Your task to perform on an android device: Go to network settings Image 0: 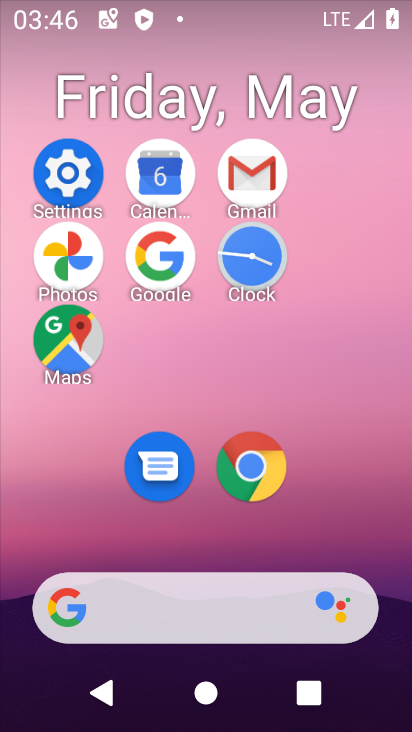
Step 0: click (63, 166)
Your task to perform on an android device: Go to network settings Image 1: 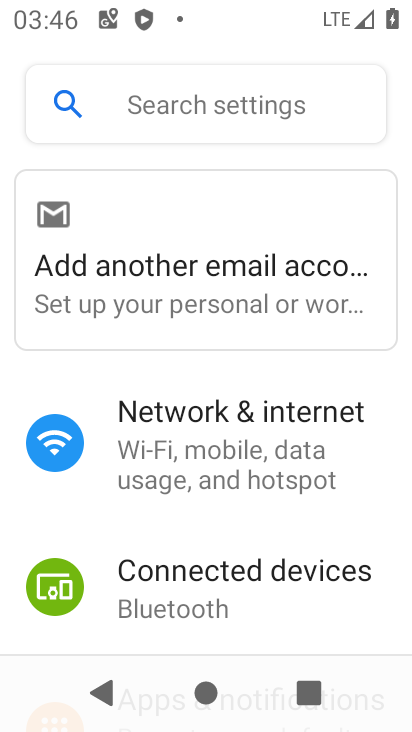
Step 1: click (321, 447)
Your task to perform on an android device: Go to network settings Image 2: 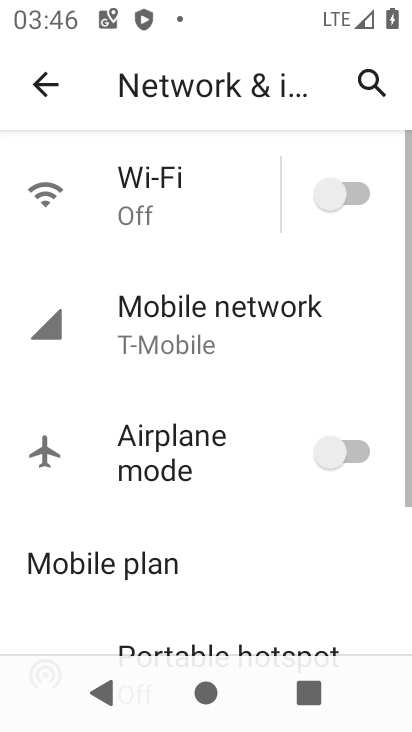
Step 2: click (187, 303)
Your task to perform on an android device: Go to network settings Image 3: 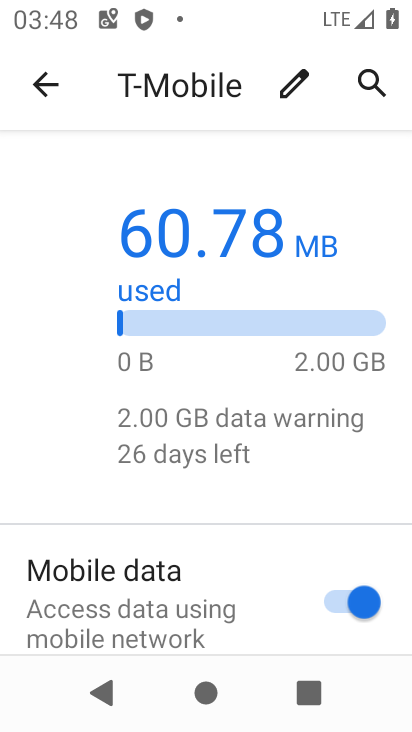
Step 3: task complete